Your task to perform on an android device: Open Amazon Image 0: 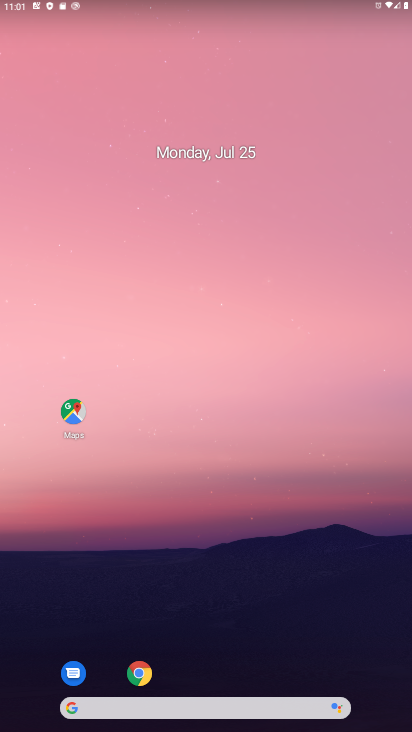
Step 0: click (139, 664)
Your task to perform on an android device: Open Amazon Image 1: 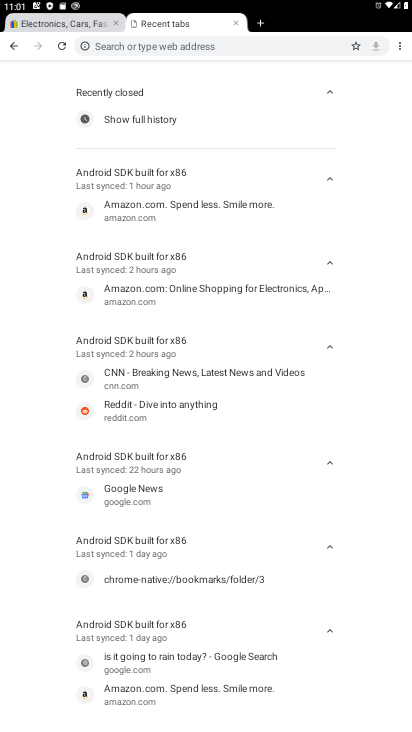
Step 1: click (257, 12)
Your task to perform on an android device: Open Amazon Image 2: 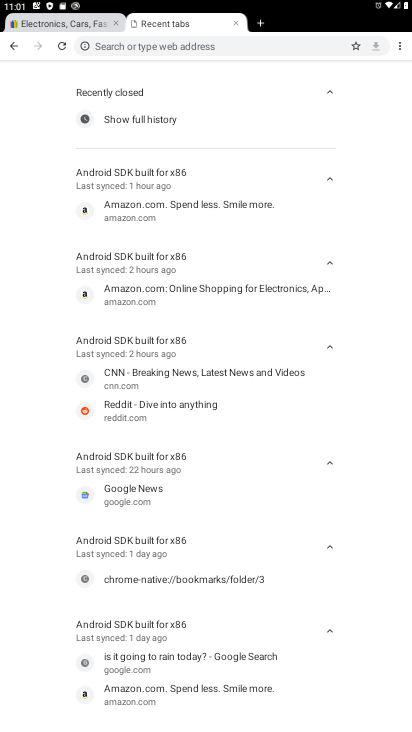
Step 2: click (251, 21)
Your task to perform on an android device: Open Amazon Image 3: 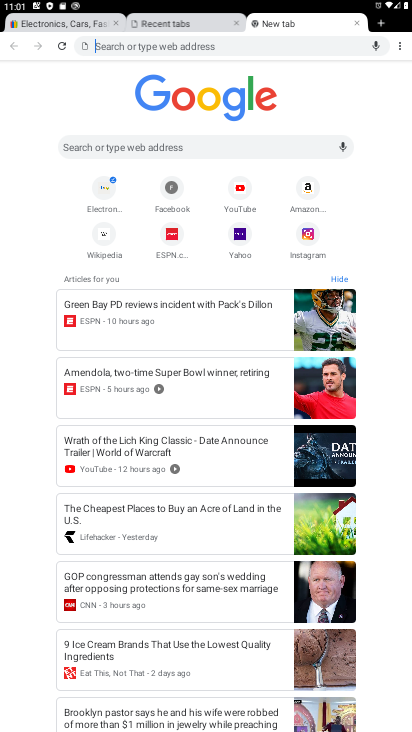
Step 3: click (305, 188)
Your task to perform on an android device: Open Amazon Image 4: 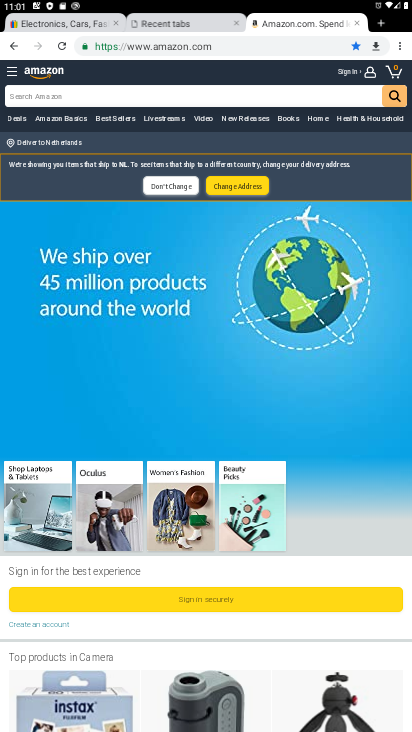
Step 4: task complete